Your task to perform on an android device: delete location history Image 0: 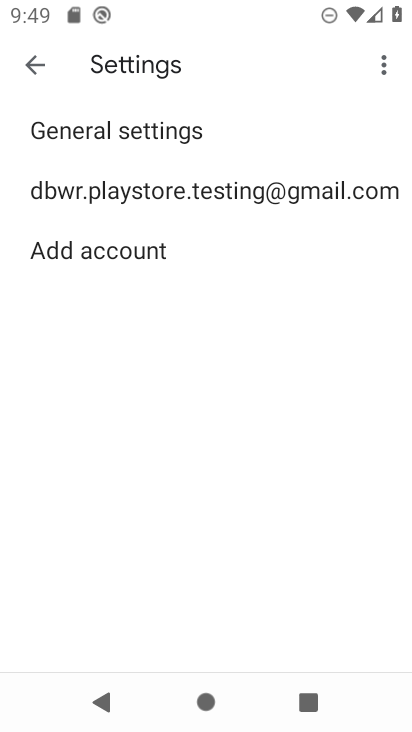
Step 0: press back button
Your task to perform on an android device: delete location history Image 1: 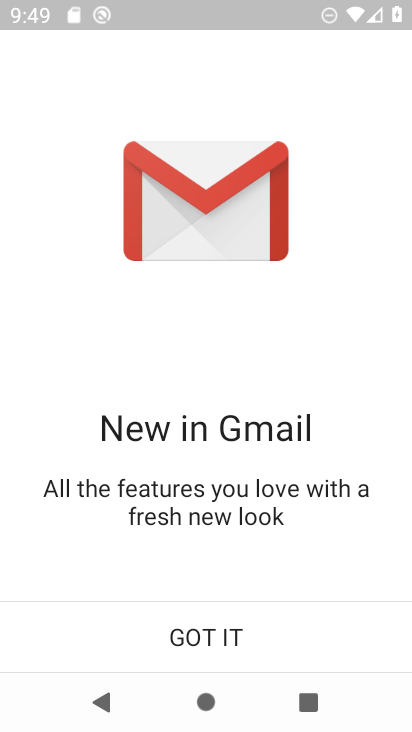
Step 1: press back button
Your task to perform on an android device: delete location history Image 2: 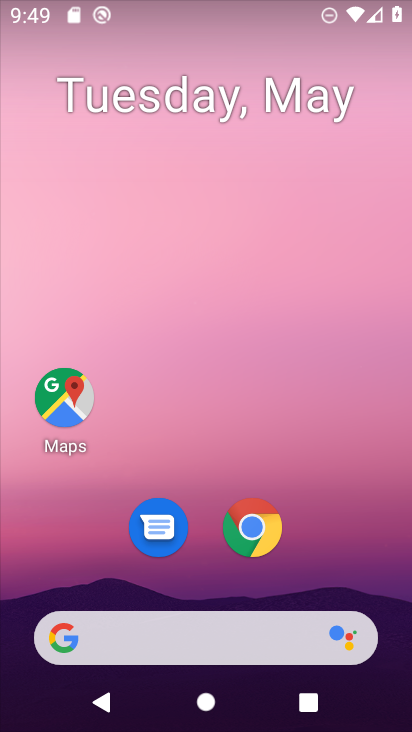
Step 2: click (67, 399)
Your task to perform on an android device: delete location history Image 3: 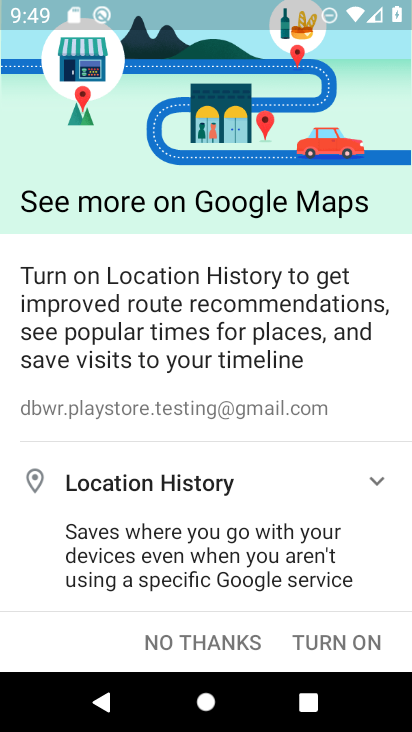
Step 3: click (222, 636)
Your task to perform on an android device: delete location history Image 4: 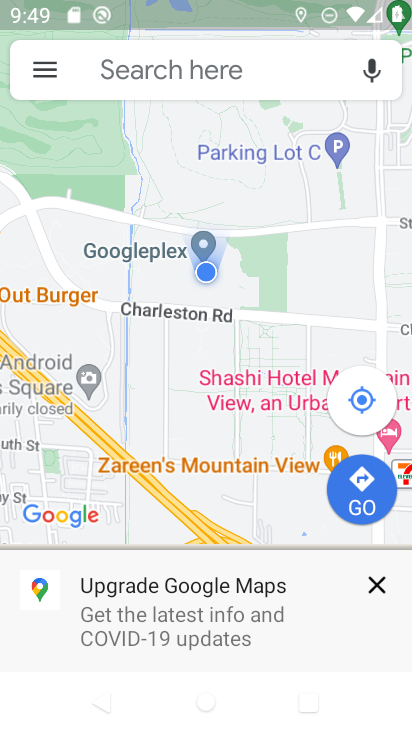
Step 4: click (40, 64)
Your task to perform on an android device: delete location history Image 5: 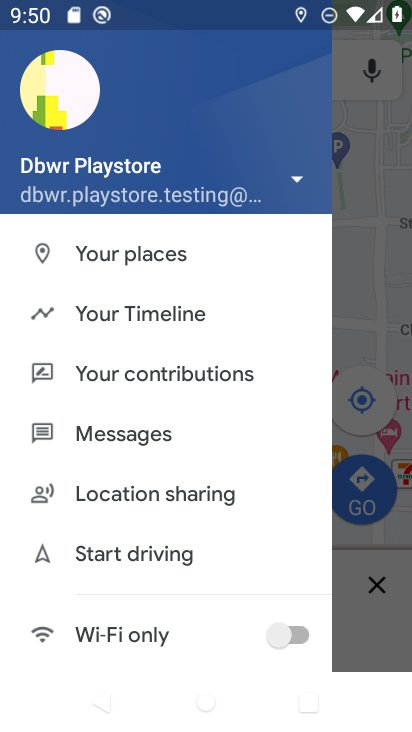
Step 5: drag from (121, 585) to (174, 479)
Your task to perform on an android device: delete location history Image 6: 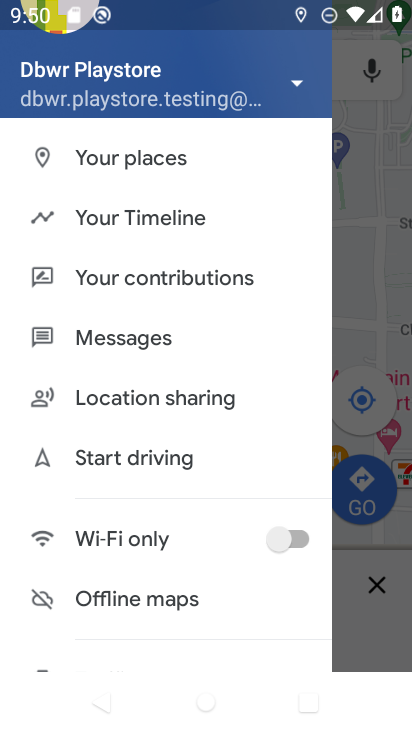
Step 6: drag from (111, 628) to (186, 512)
Your task to perform on an android device: delete location history Image 7: 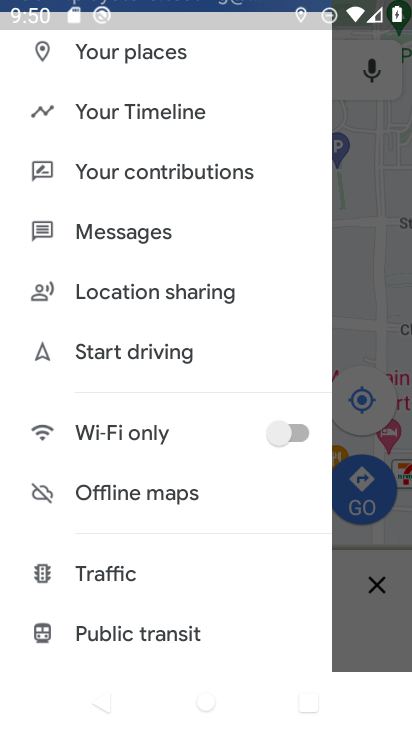
Step 7: drag from (129, 603) to (191, 451)
Your task to perform on an android device: delete location history Image 8: 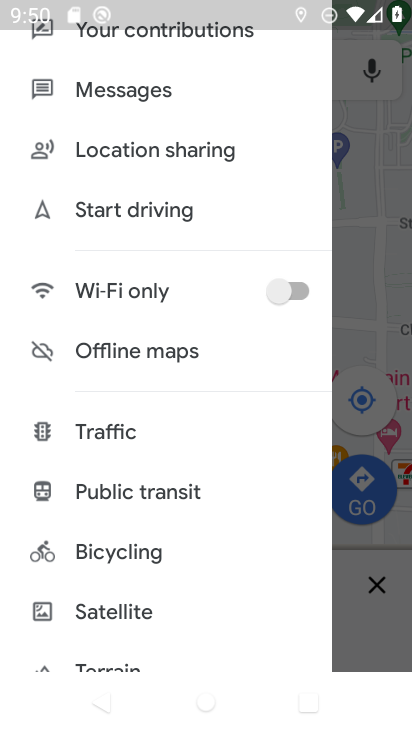
Step 8: drag from (107, 591) to (139, 458)
Your task to perform on an android device: delete location history Image 9: 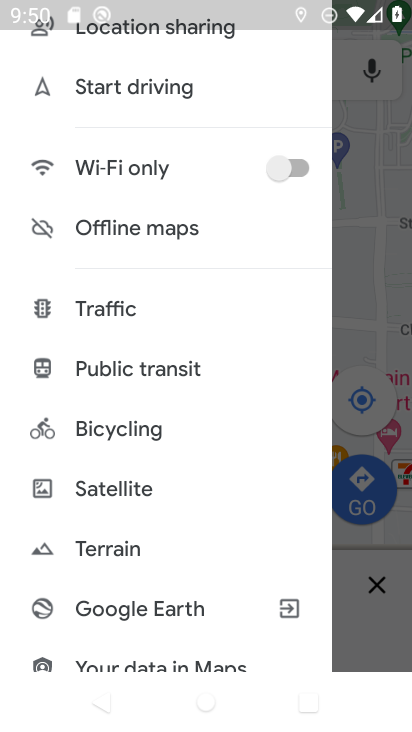
Step 9: drag from (85, 583) to (134, 483)
Your task to perform on an android device: delete location history Image 10: 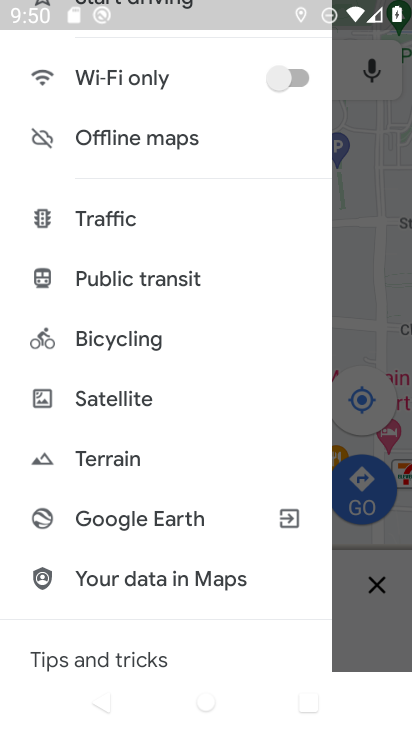
Step 10: drag from (104, 602) to (139, 467)
Your task to perform on an android device: delete location history Image 11: 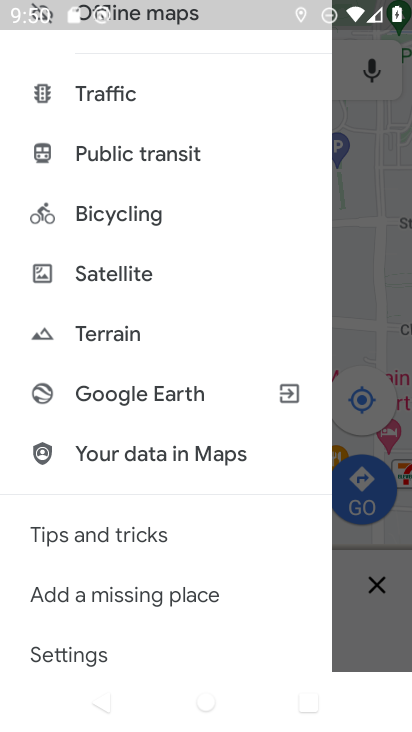
Step 11: drag from (83, 614) to (135, 524)
Your task to perform on an android device: delete location history Image 12: 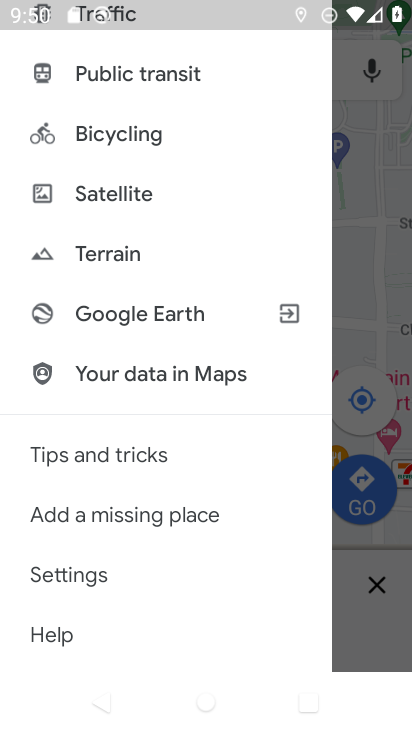
Step 12: click (80, 583)
Your task to perform on an android device: delete location history Image 13: 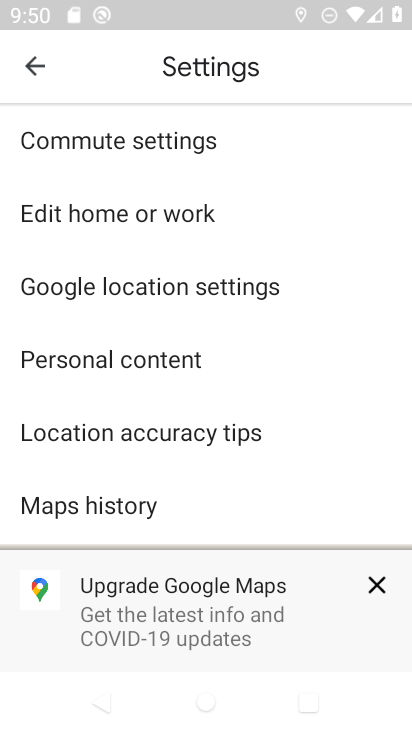
Step 13: click (151, 359)
Your task to perform on an android device: delete location history Image 14: 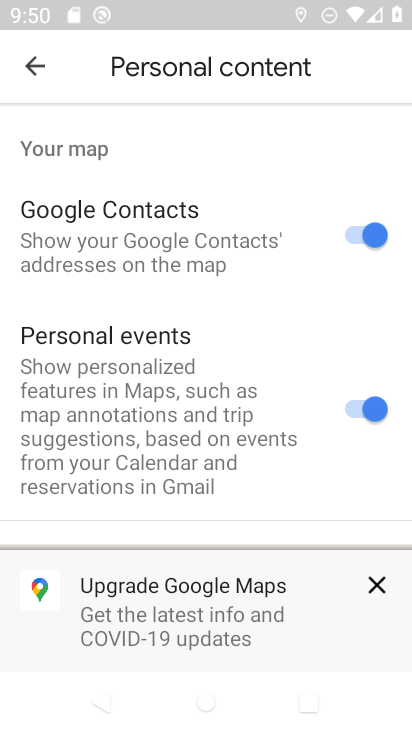
Step 14: click (378, 585)
Your task to perform on an android device: delete location history Image 15: 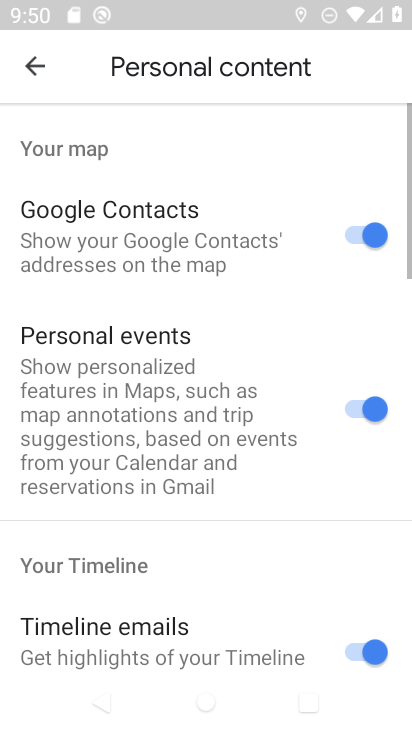
Step 15: drag from (165, 549) to (234, 437)
Your task to perform on an android device: delete location history Image 16: 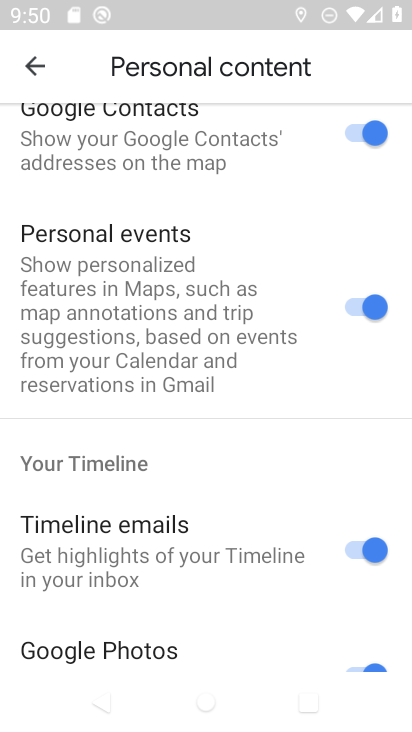
Step 16: drag from (157, 591) to (221, 489)
Your task to perform on an android device: delete location history Image 17: 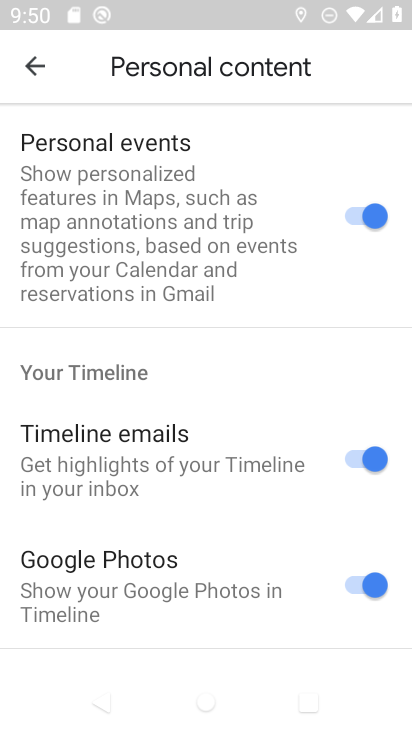
Step 17: drag from (157, 615) to (231, 515)
Your task to perform on an android device: delete location history Image 18: 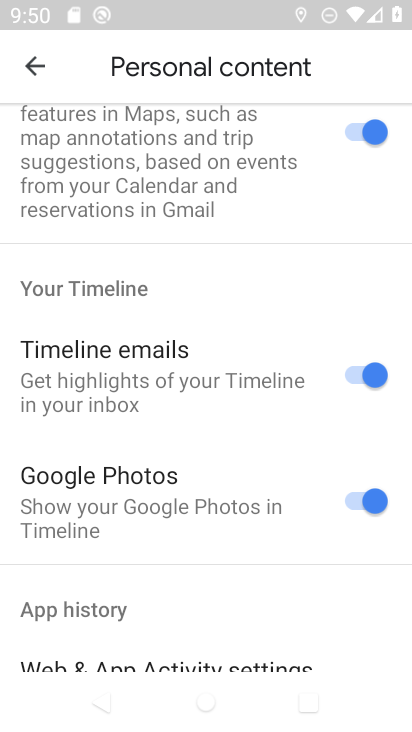
Step 18: drag from (158, 613) to (203, 511)
Your task to perform on an android device: delete location history Image 19: 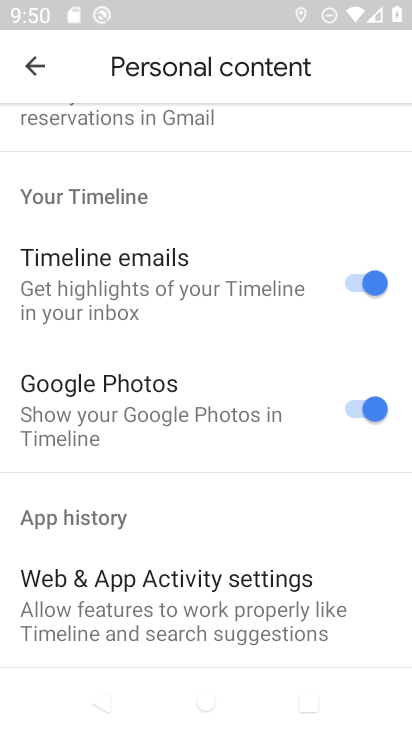
Step 19: drag from (144, 534) to (199, 445)
Your task to perform on an android device: delete location history Image 20: 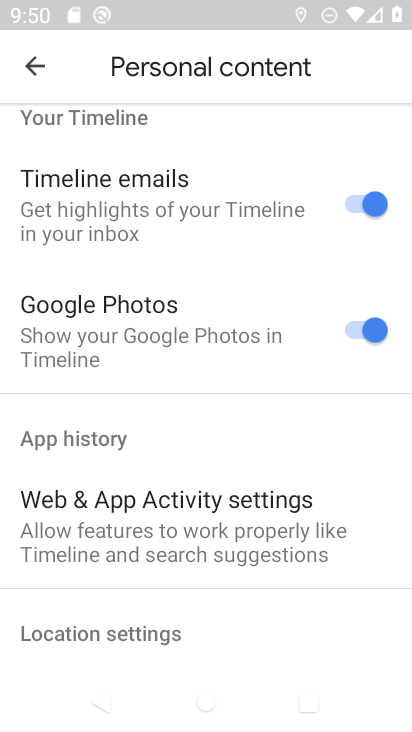
Step 20: drag from (120, 613) to (195, 457)
Your task to perform on an android device: delete location history Image 21: 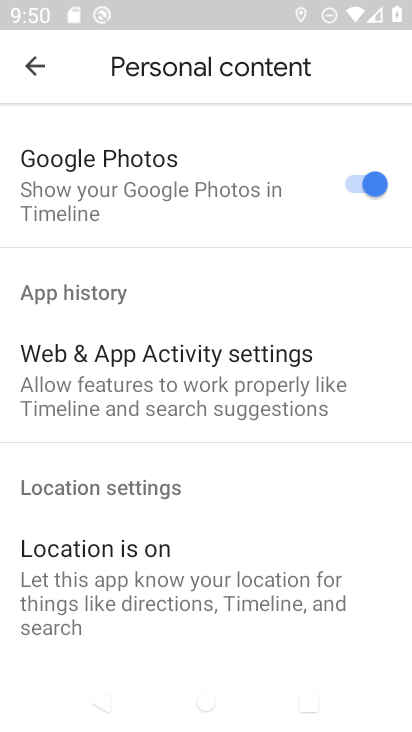
Step 21: drag from (159, 530) to (245, 393)
Your task to perform on an android device: delete location history Image 22: 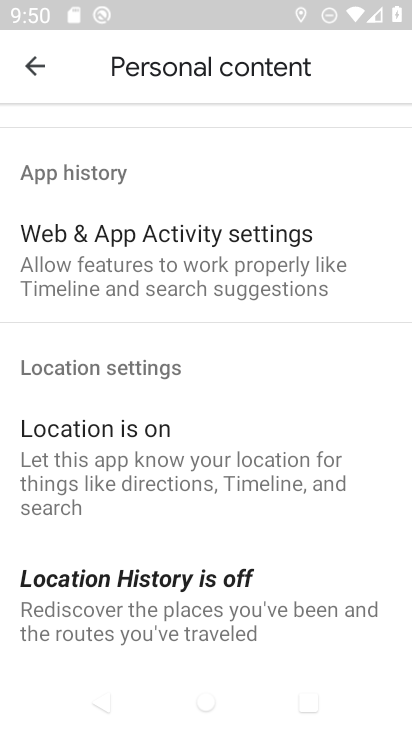
Step 22: drag from (132, 540) to (233, 392)
Your task to perform on an android device: delete location history Image 23: 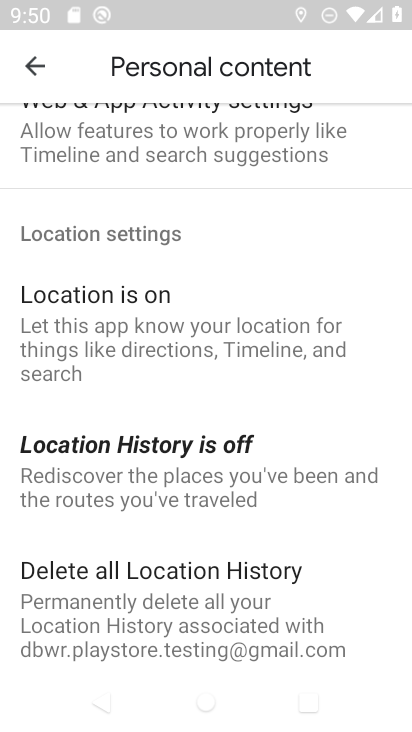
Step 23: drag from (174, 536) to (300, 396)
Your task to perform on an android device: delete location history Image 24: 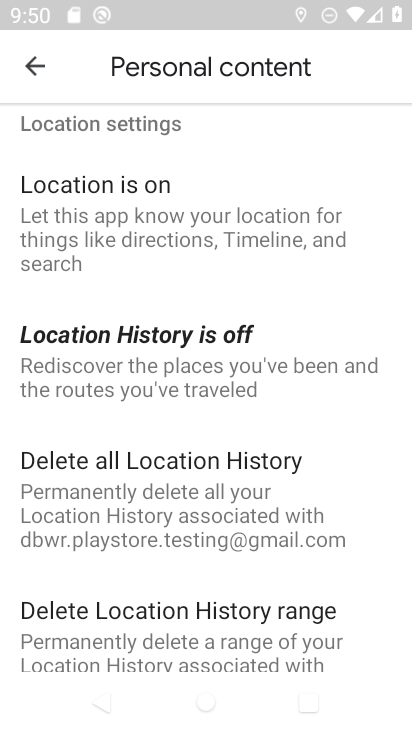
Step 24: click (233, 463)
Your task to perform on an android device: delete location history Image 25: 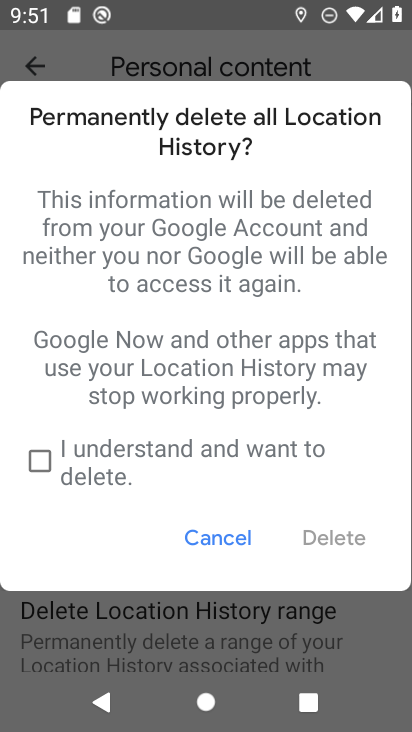
Step 25: click (28, 456)
Your task to perform on an android device: delete location history Image 26: 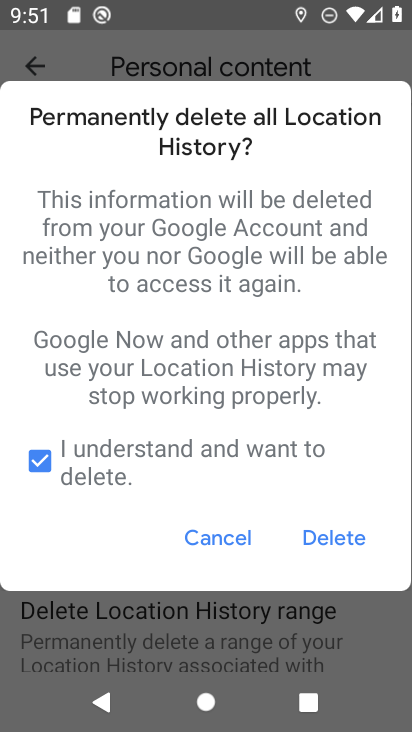
Step 26: click (349, 540)
Your task to perform on an android device: delete location history Image 27: 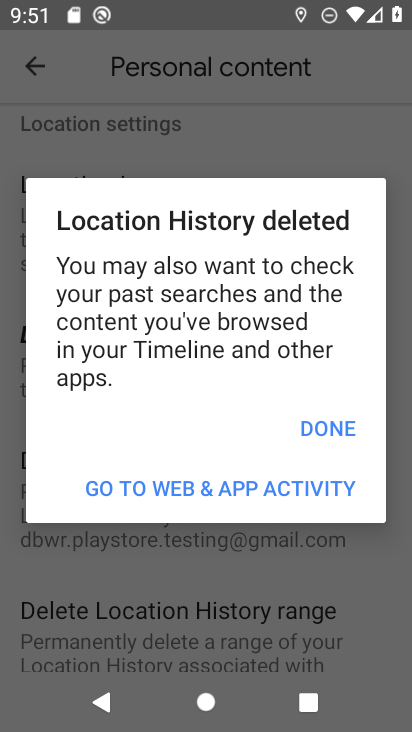
Step 27: click (327, 431)
Your task to perform on an android device: delete location history Image 28: 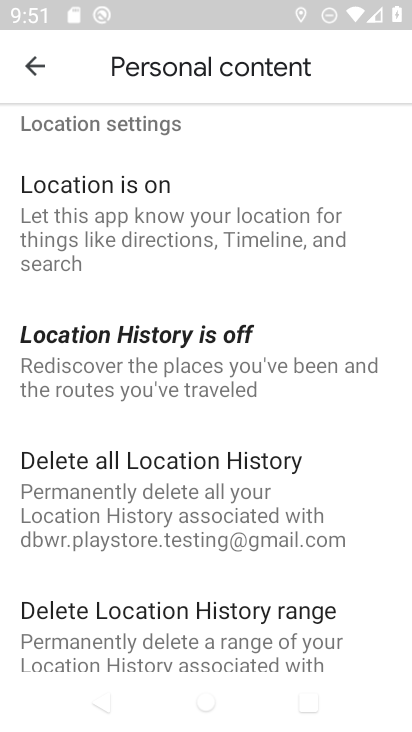
Step 28: task complete